Your task to perform on an android device: Do I have any events today? Image 0: 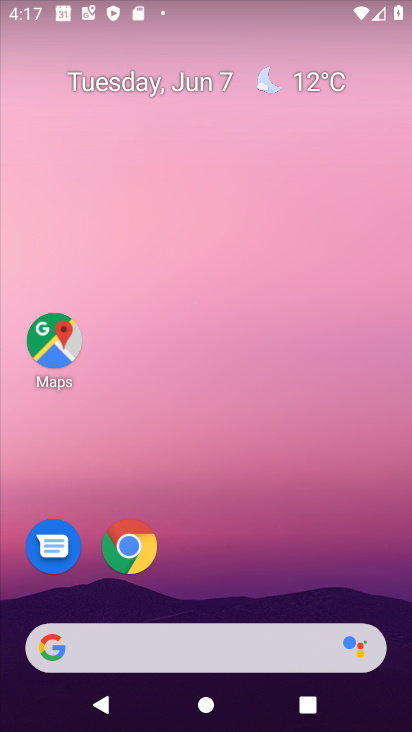
Step 0: drag from (225, 603) to (231, 134)
Your task to perform on an android device: Do I have any events today? Image 1: 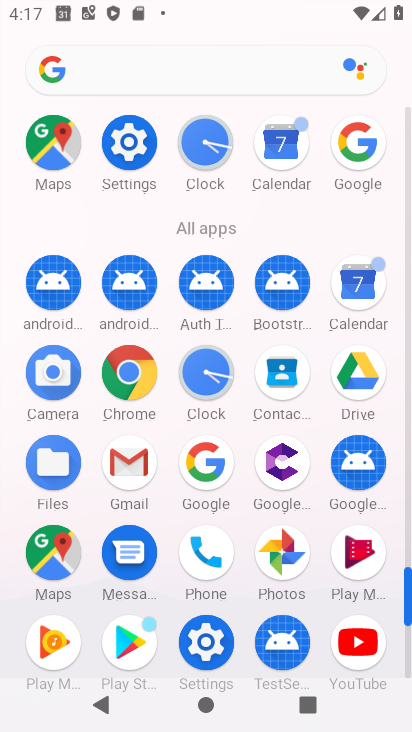
Step 1: click (358, 290)
Your task to perform on an android device: Do I have any events today? Image 2: 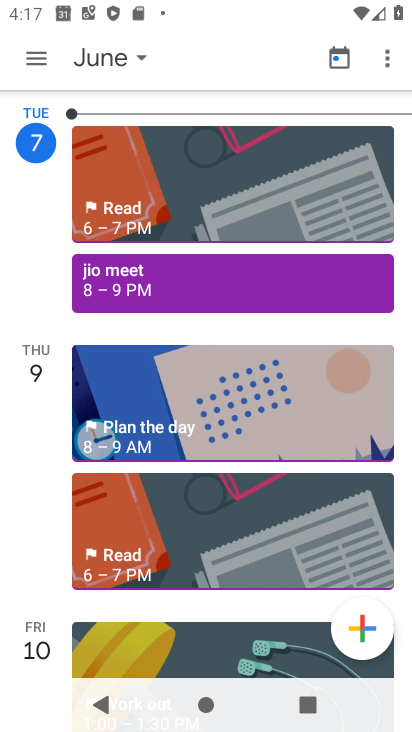
Step 2: task complete